Your task to perform on an android device: read, delete, or share a saved page in the chrome app Image 0: 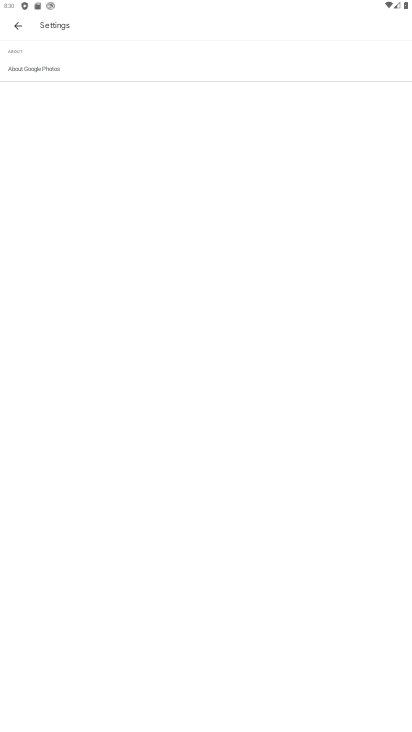
Step 0: press home button
Your task to perform on an android device: read, delete, or share a saved page in the chrome app Image 1: 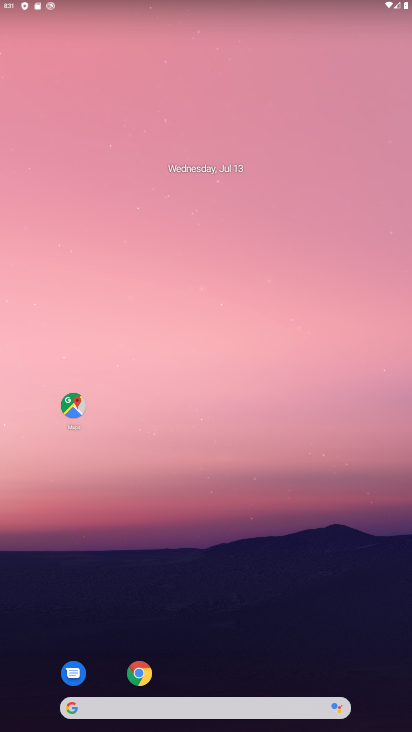
Step 1: click (134, 669)
Your task to perform on an android device: read, delete, or share a saved page in the chrome app Image 2: 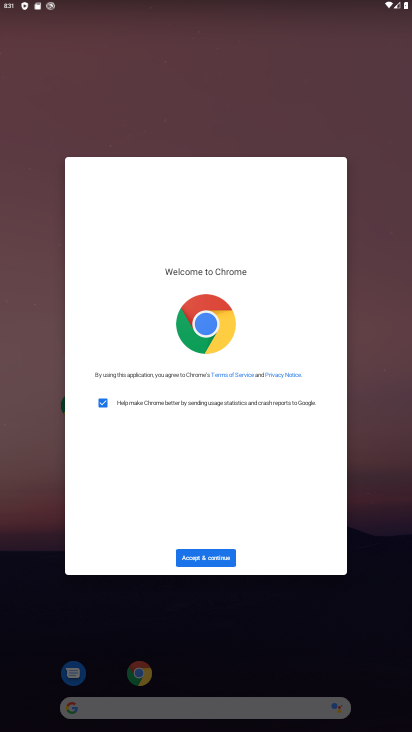
Step 2: click (202, 559)
Your task to perform on an android device: read, delete, or share a saved page in the chrome app Image 3: 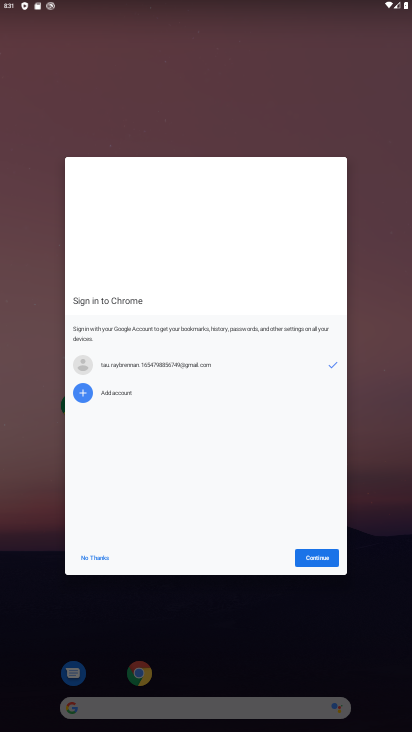
Step 3: click (302, 554)
Your task to perform on an android device: read, delete, or share a saved page in the chrome app Image 4: 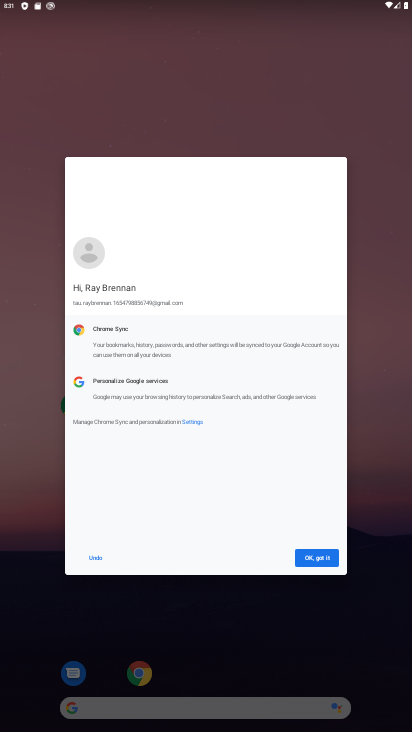
Step 4: click (302, 554)
Your task to perform on an android device: read, delete, or share a saved page in the chrome app Image 5: 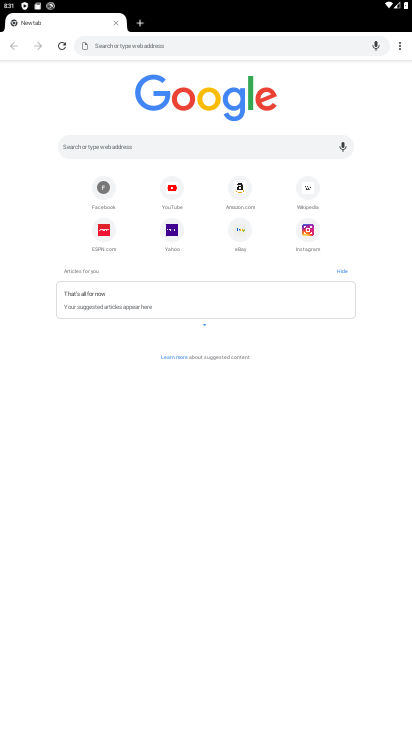
Step 5: click (405, 44)
Your task to perform on an android device: read, delete, or share a saved page in the chrome app Image 6: 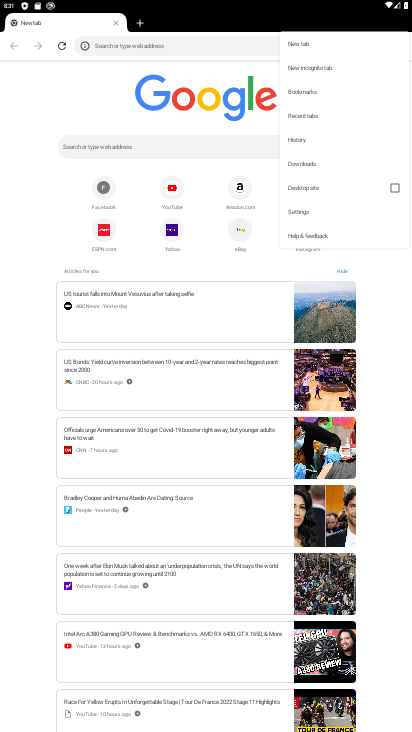
Step 6: click (318, 160)
Your task to perform on an android device: read, delete, or share a saved page in the chrome app Image 7: 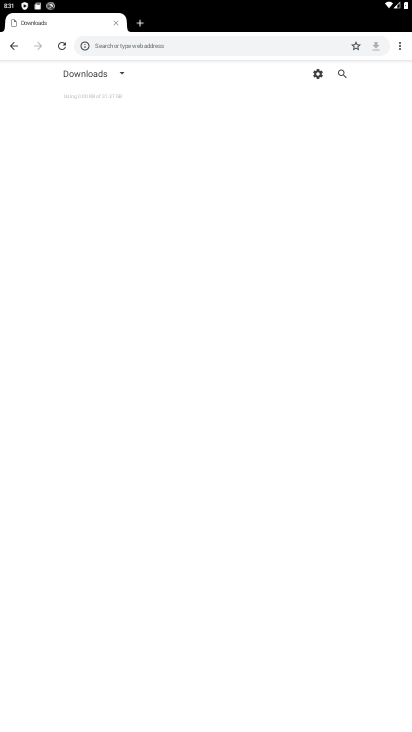
Step 7: task complete